Your task to perform on an android device: Open Google Maps and go to "Timeline" Image 0: 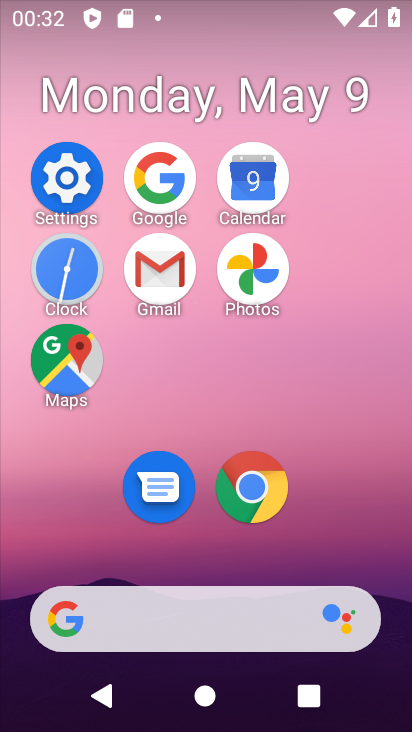
Step 0: click (78, 364)
Your task to perform on an android device: Open Google Maps and go to "Timeline" Image 1: 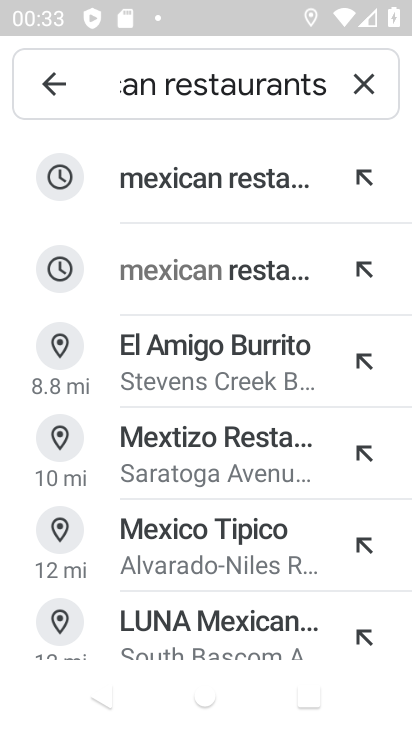
Step 1: click (58, 87)
Your task to perform on an android device: Open Google Maps and go to "Timeline" Image 2: 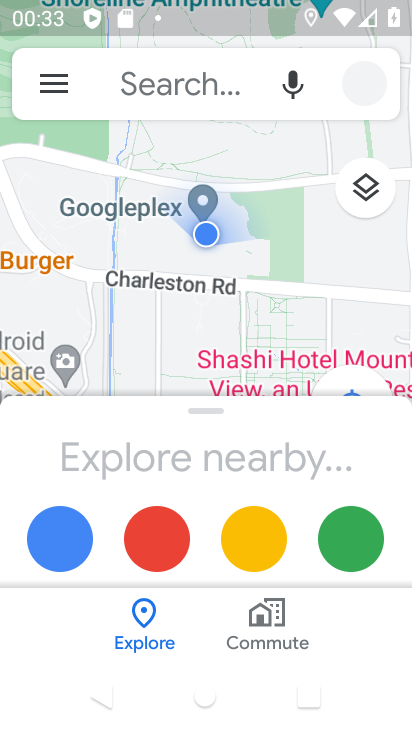
Step 2: click (58, 87)
Your task to perform on an android device: Open Google Maps and go to "Timeline" Image 3: 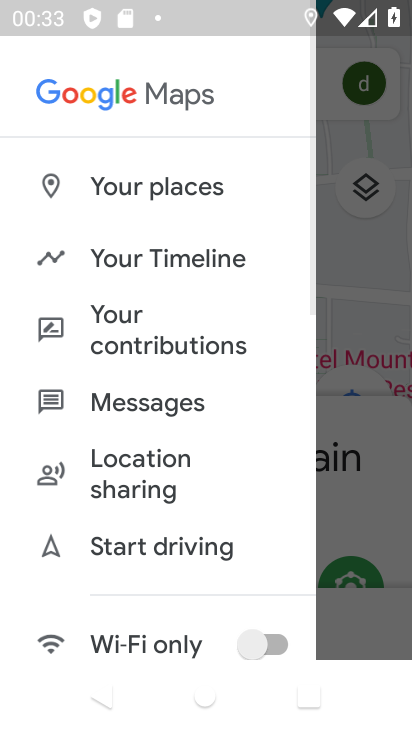
Step 3: click (151, 267)
Your task to perform on an android device: Open Google Maps and go to "Timeline" Image 4: 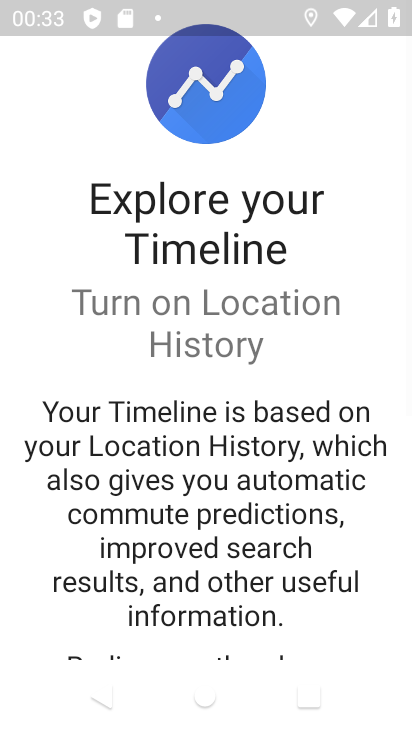
Step 4: drag from (201, 631) to (187, 223)
Your task to perform on an android device: Open Google Maps and go to "Timeline" Image 5: 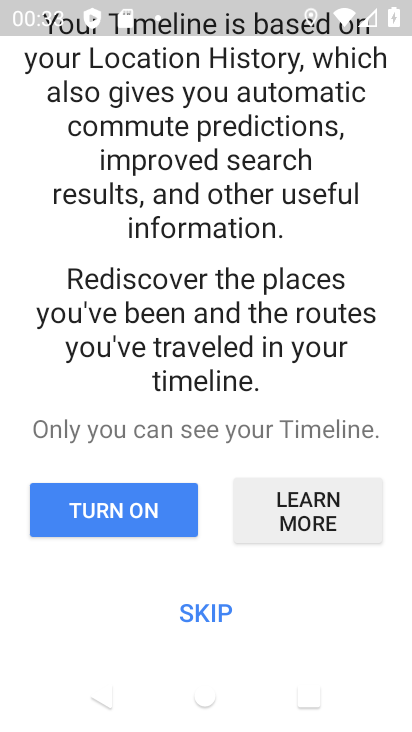
Step 5: click (137, 505)
Your task to perform on an android device: Open Google Maps and go to "Timeline" Image 6: 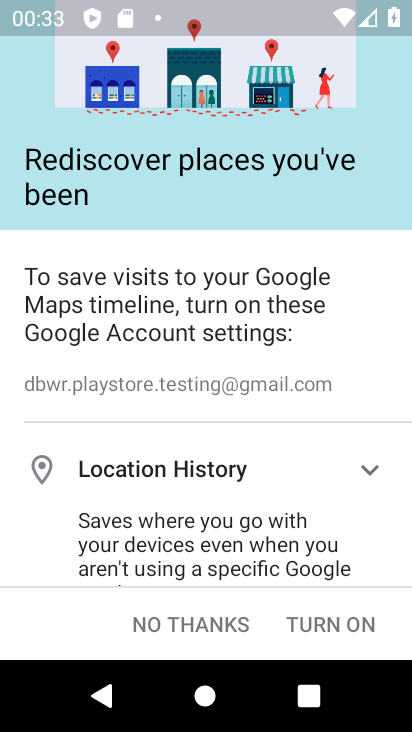
Step 6: click (357, 621)
Your task to perform on an android device: Open Google Maps and go to "Timeline" Image 7: 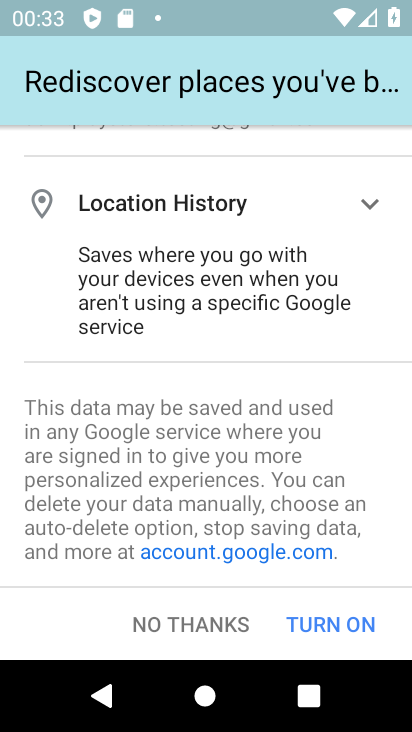
Step 7: drag from (304, 533) to (307, 257)
Your task to perform on an android device: Open Google Maps and go to "Timeline" Image 8: 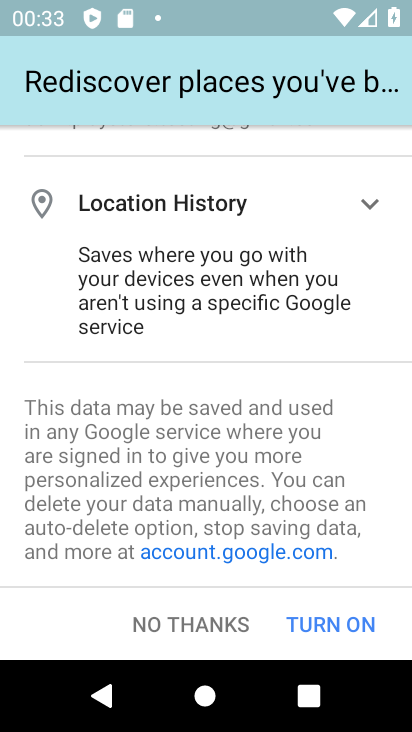
Step 8: click (332, 619)
Your task to perform on an android device: Open Google Maps and go to "Timeline" Image 9: 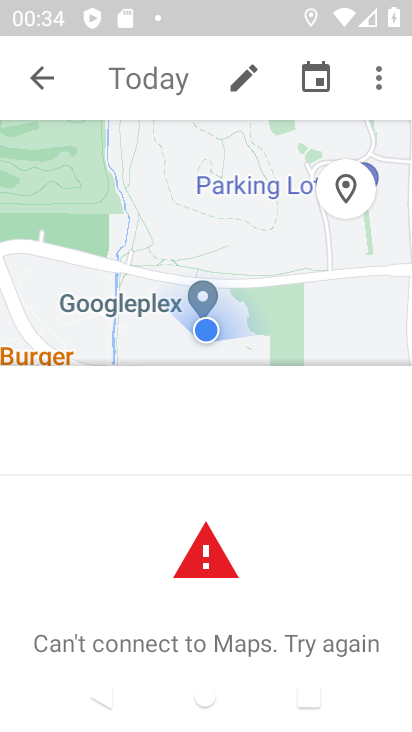
Step 9: task complete